Your task to perform on an android device: Open the Play Movies app and select the watchlist tab. Image 0: 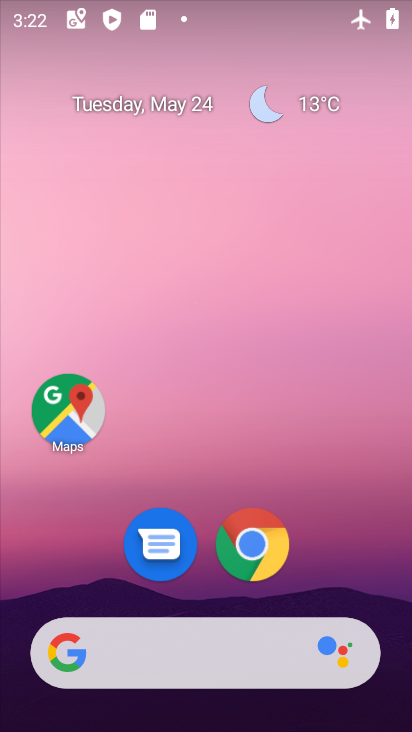
Step 0: drag from (352, 560) to (396, 56)
Your task to perform on an android device: Open the Play Movies app and select the watchlist tab. Image 1: 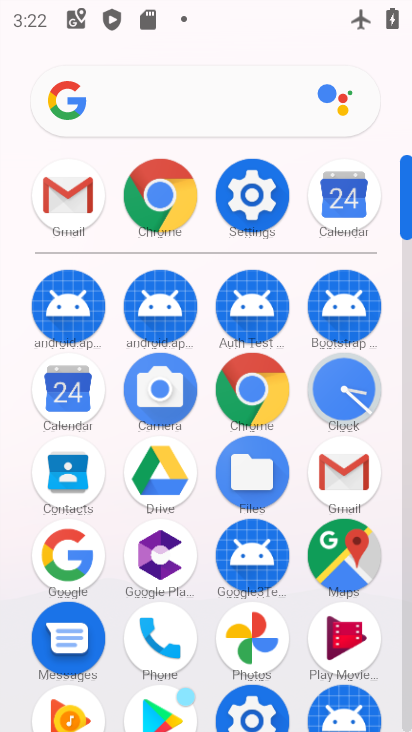
Step 1: drag from (394, 676) to (361, 360)
Your task to perform on an android device: Open the Play Movies app and select the watchlist tab. Image 2: 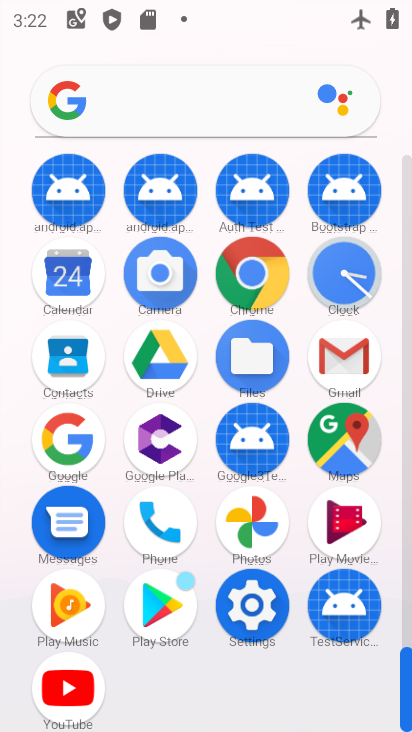
Step 2: click (339, 521)
Your task to perform on an android device: Open the Play Movies app and select the watchlist tab. Image 3: 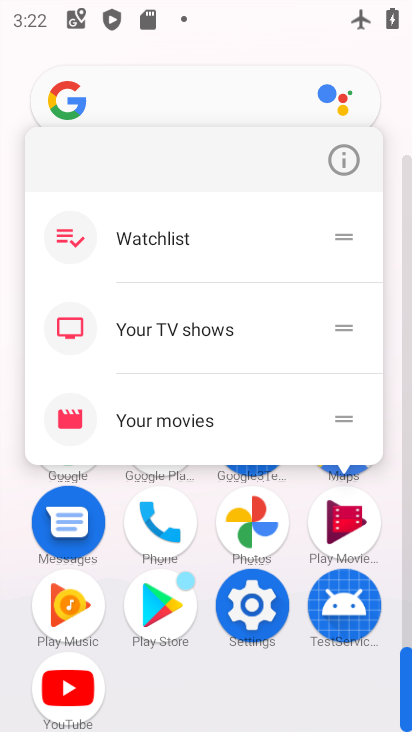
Step 3: click (339, 520)
Your task to perform on an android device: Open the Play Movies app and select the watchlist tab. Image 4: 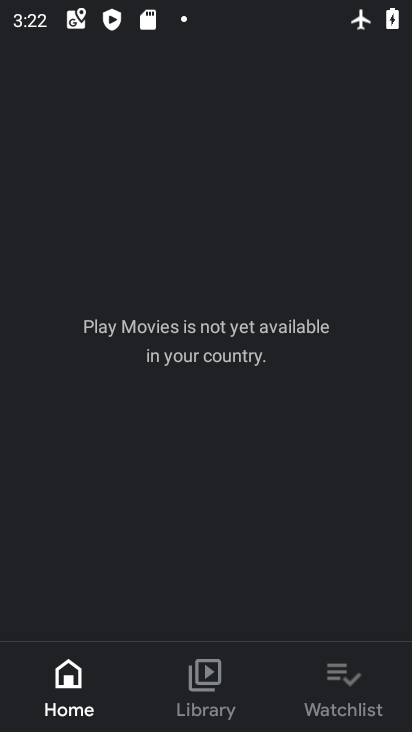
Step 4: click (320, 701)
Your task to perform on an android device: Open the Play Movies app and select the watchlist tab. Image 5: 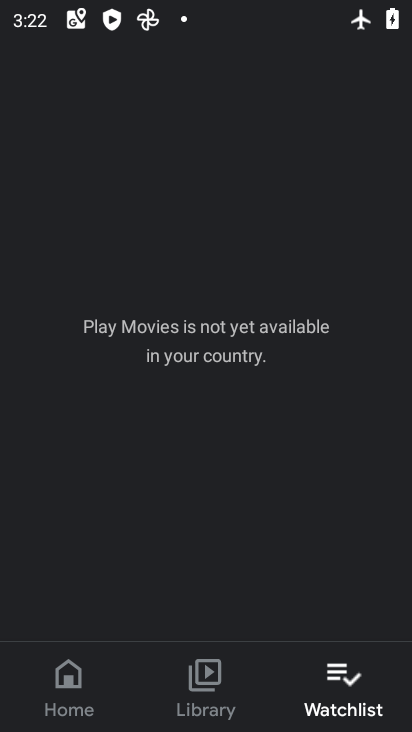
Step 5: task complete